Your task to perform on an android device: turn on location history Image 0: 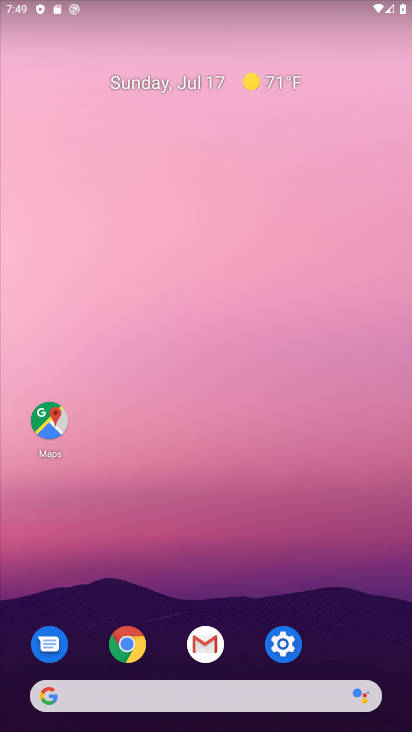
Step 0: press home button
Your task to perform on an android device: turn on location history Image 1: 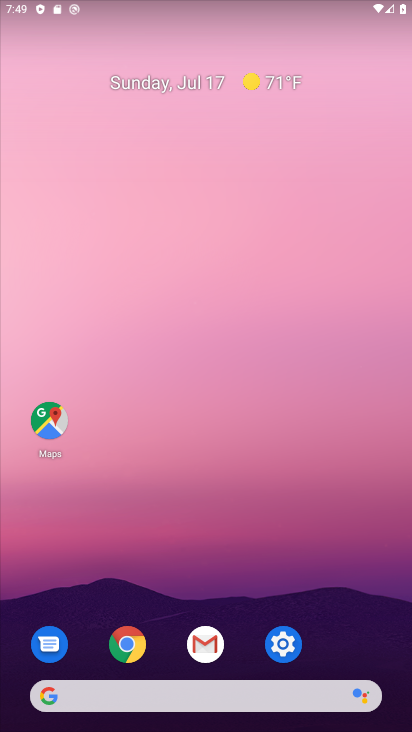
Step 1: click (271, 641)
Your task to perform on an android device: turn on location history Image 2: 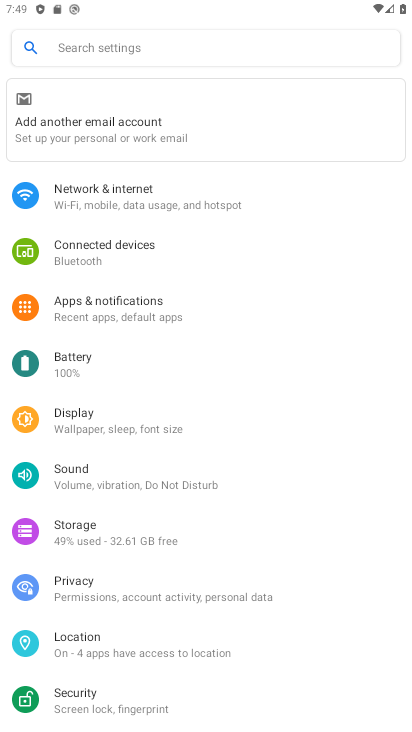
Step 2: click (151, 638)
Your task to perform on an android device: turn on location history Image 3: 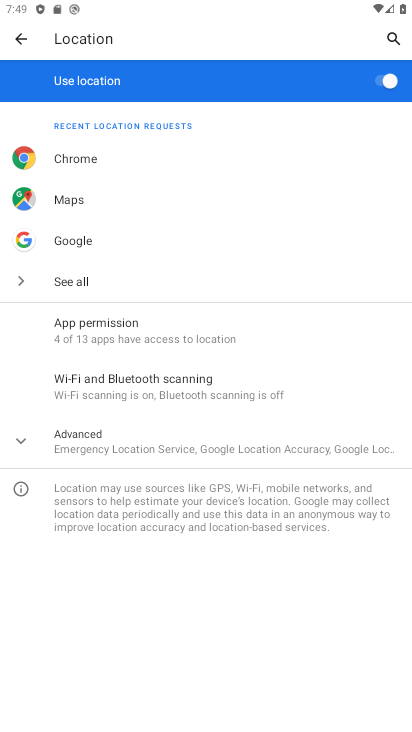
Step 3: click (20, 449)
Your task to perform on an android device: turn on location history Image 4: 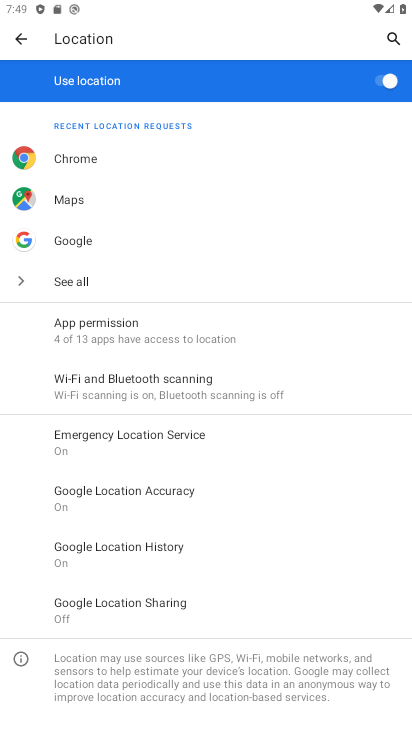
Step 4: click (140, 537)
Your task to perform on an android device: turn on location history Image 5: 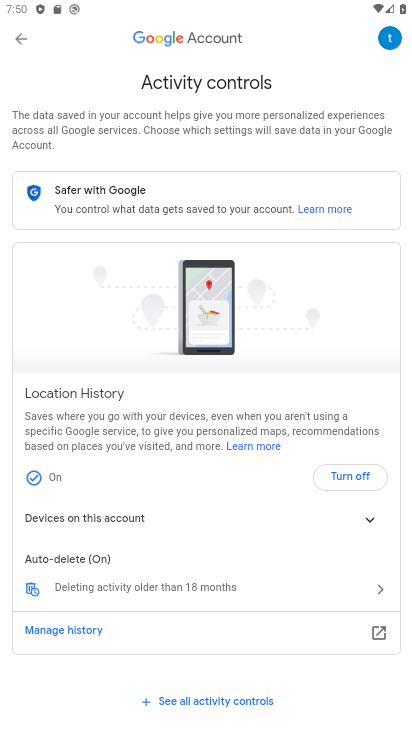
Step 5: task complete